Your task to perform on an android device: move a message to another label in the gmail app Image 0: 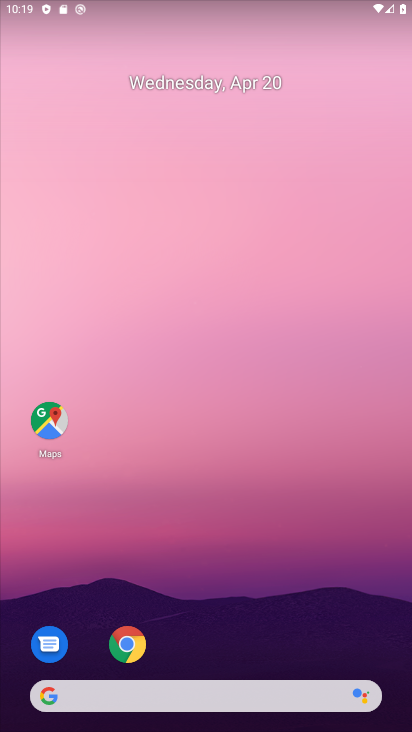
Step 0: drag from (209, 616) to (240, 111)
Your task to perform on an android device: move a message to another label in the gmail app Image 1: 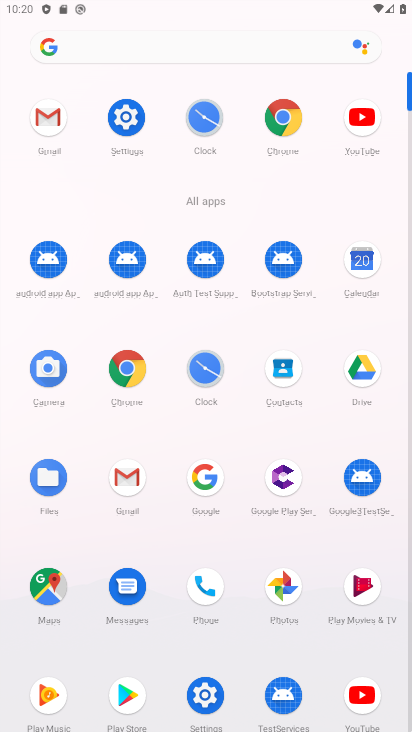
Step 1: click (122, 480)
Your task to perform on an android device: move a message to another label in the gmail app Image 2: 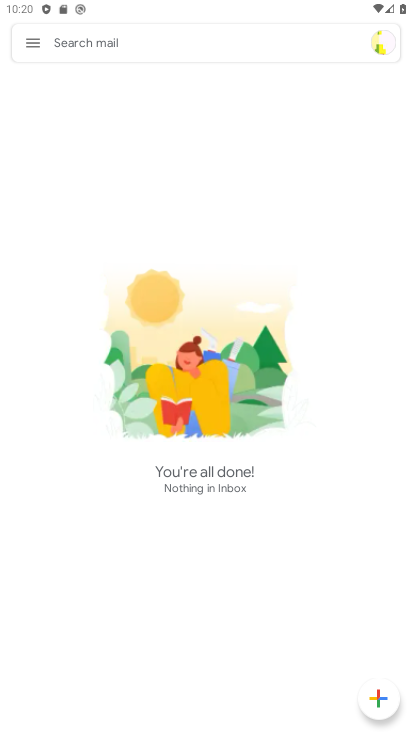
Step 2: task complete